Your task to perform on an android device: Open Wikipedia Image 0: 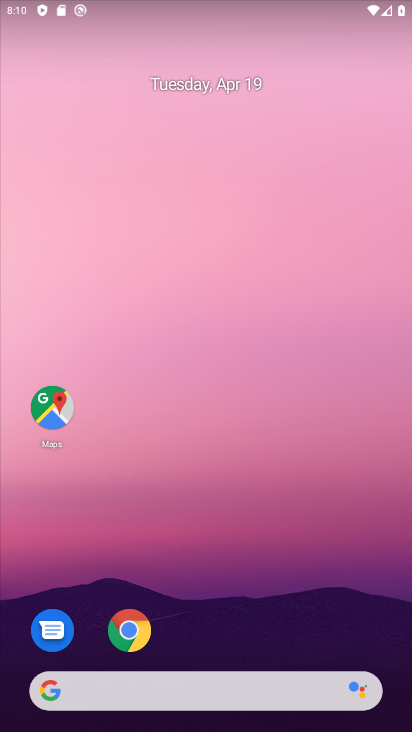
Step 0: drag from (267, 666) to (243, 128)
Your task to perform on an android device: Open Wikipedia Image 1: 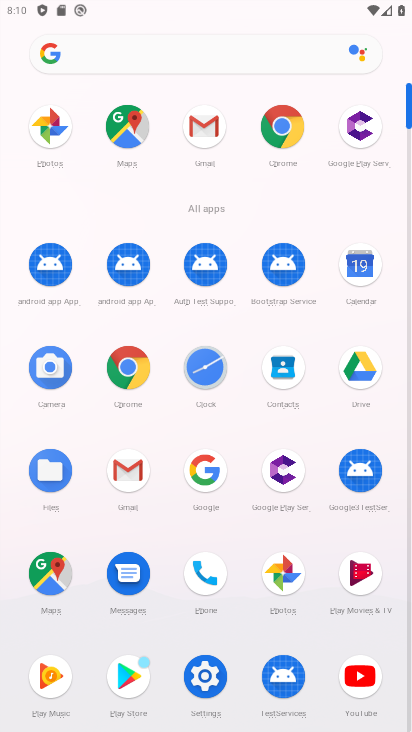
Step 1: click (288, 124)
Your task to perform on an android device: Open Wikipedia Image 2: 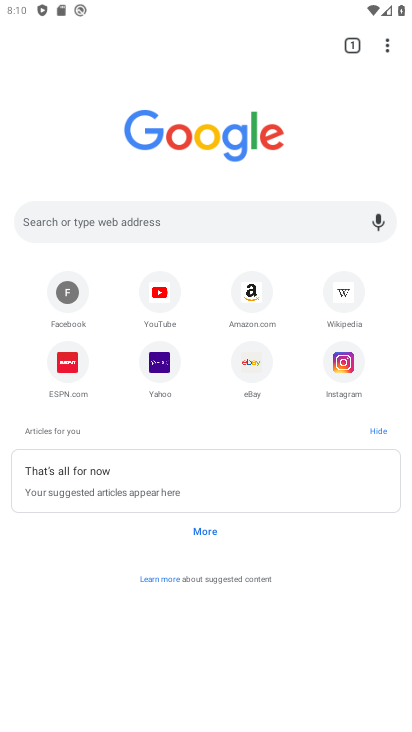
Step 2: click (350, 309)
Your task to perform on an android device: Open Wikipedia Image 3: 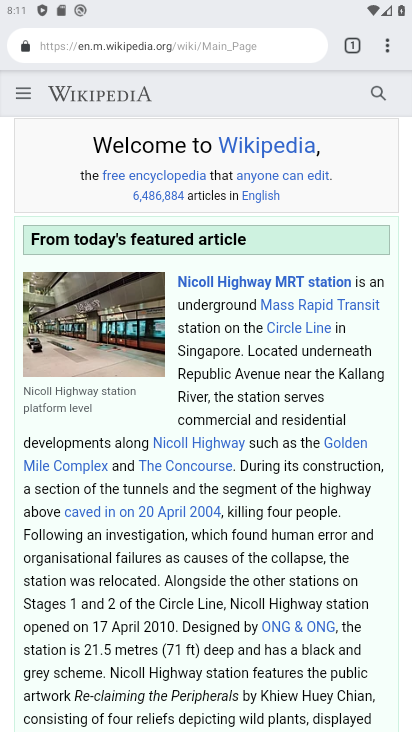
Step 3: task complete